Your task to perform on an android device: Go to Wikipedia Image 0: 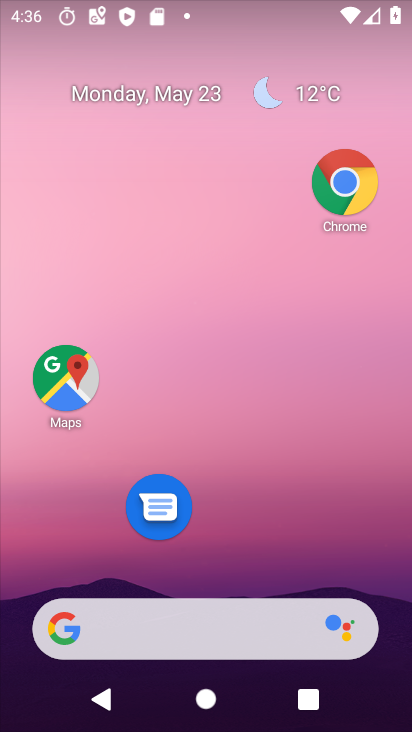
Step 0: click (343, 161)
Your task to perform on an android device: Go to Wikipedia Image 1: 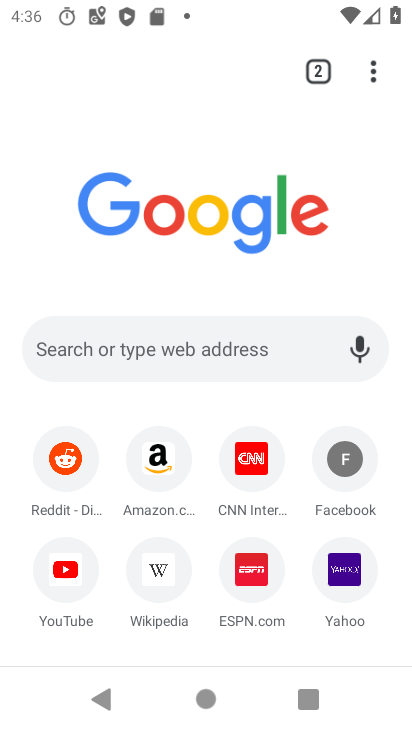
Step 1: click (170, 589)
Your task to perform on an android device: Go to Wikipedia Image 2: 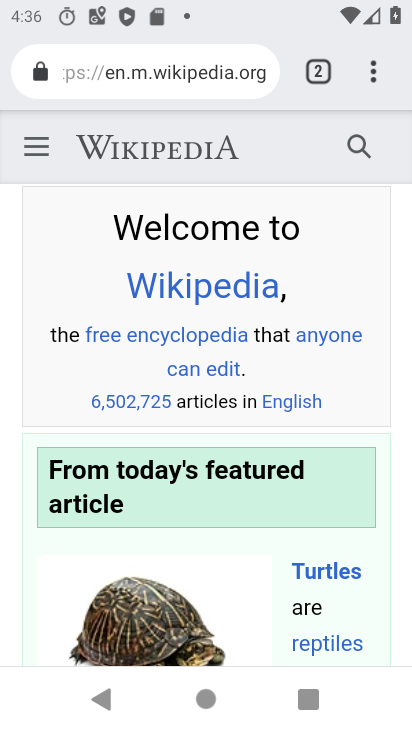
Step 2: task complete